Your task to perform on an android device: Open calendar and show me the fourth week of next month Image 0: 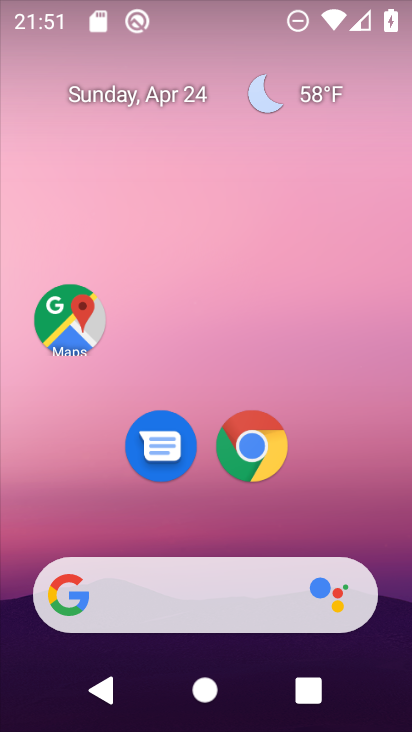
Step 0: drag from (149, 567) to (307, 56)
Your task to perform on an android device: Open calendar and show me the fourth week of next month Image 1: 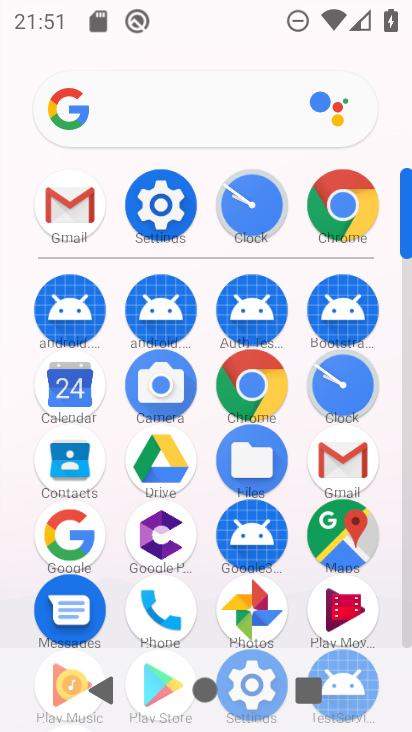
Step 1: click (69, 408)
Your task to perform on an android device: Open calendar and show me the fourth week of next month Image 2: 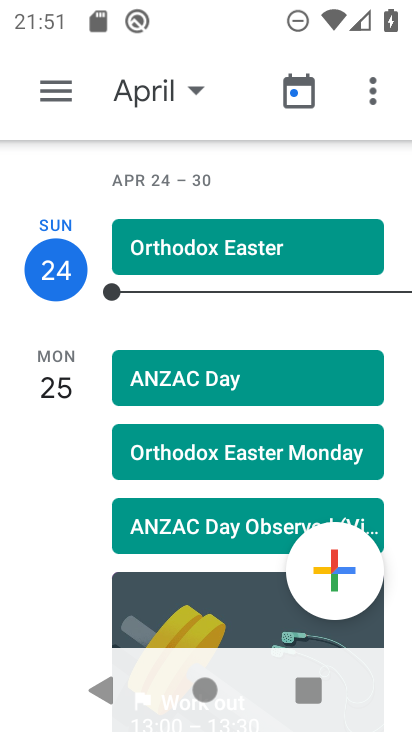
Step 2: click (159, 92)
Your task to perform on an android device: Open calendar and show me the fourth week of next month Image 3: 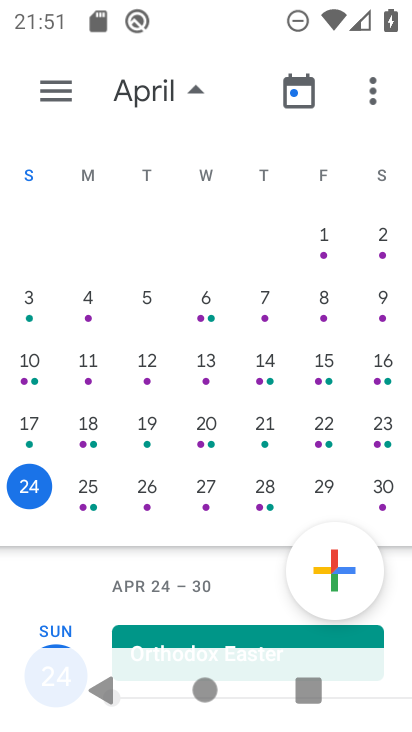
Step 3: drag from (354, 456) to (2, 411)
Your task to perform on an android device: Open calendar and show me the fourth week of next month Image 4: 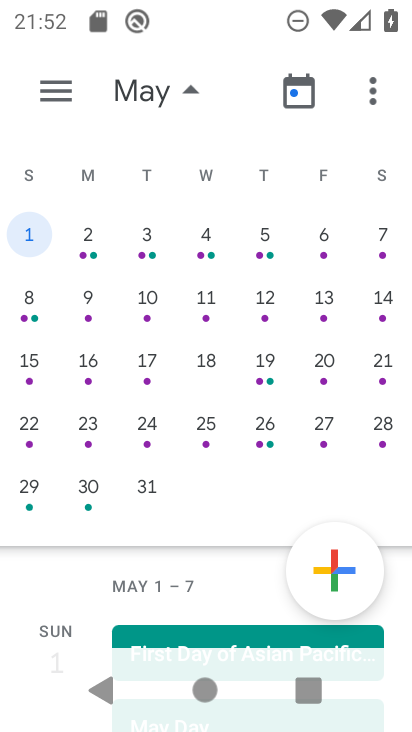
Step 4: click (34, 422)
Your task to perform on an android device: Open calendar and show me the fourth week of next month Image 5: 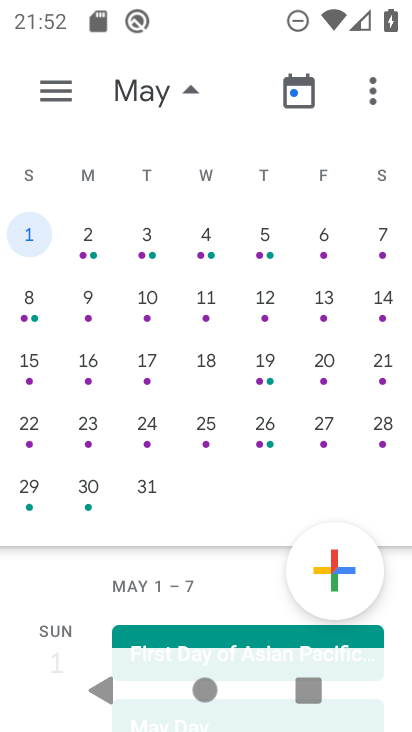
Step 5: click (26, 424)
Your task to perform on an android device: Open calendar and show me the fourth week of next month Image 6: 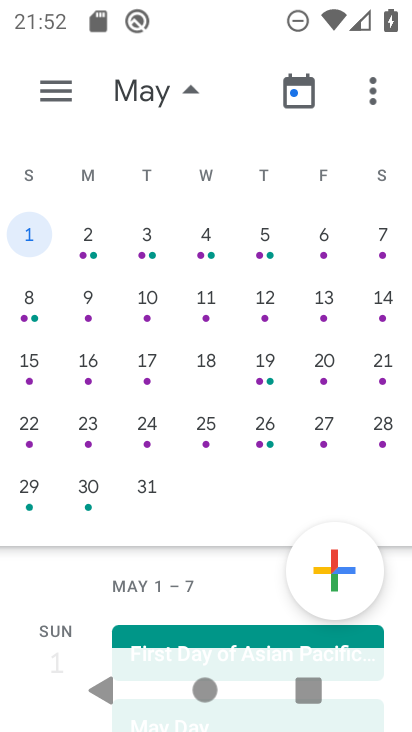
Step 6: click (30, 428)
Your task to perform on an android device: Open calendar and show me the fourth week of next month Image 7: 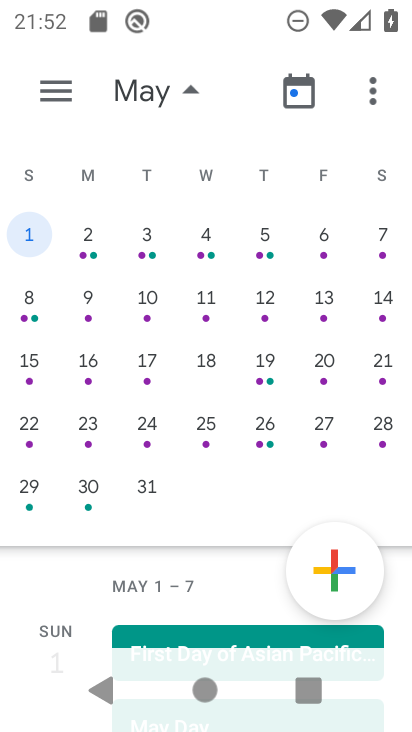
Step 7: click (42, 423)
Your task to perform on an android device: Open calendar and show me the fourth week of next month Image 8: 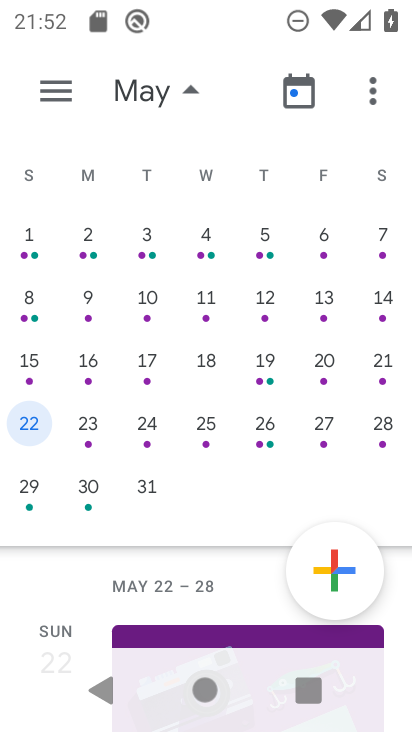
Step 8: click (62, 91)
Your task to perform on an android device: Open calendar and show me the fourth week of next month Image 9: 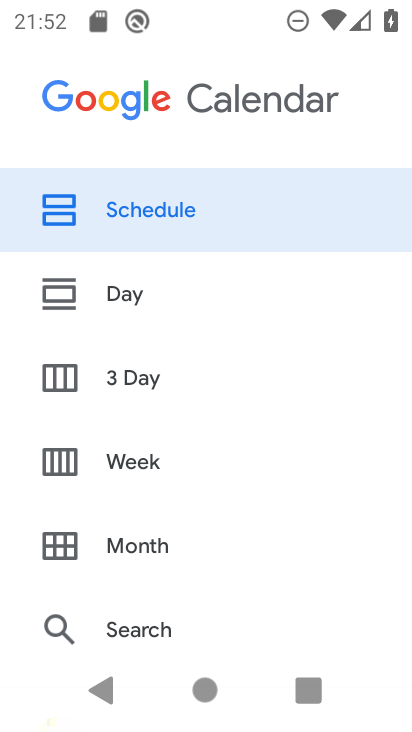
Step 9: click (119, 465)
Your task to perform on an android device: Open calendar and show me the fourth week of next month Image 10: 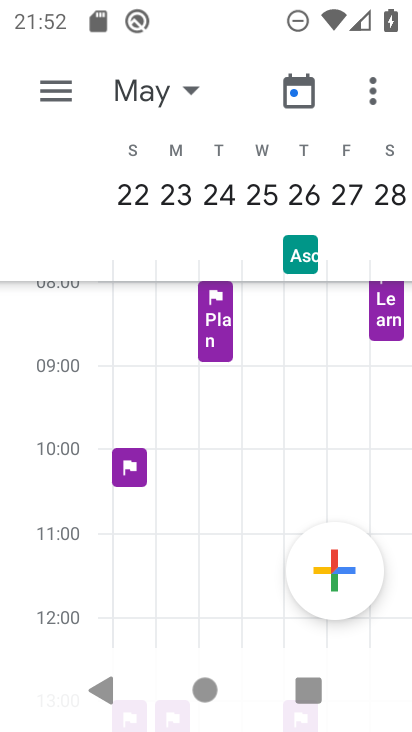
Step 10: task complete